Your task to perform on an android device: Show me productivity apps on the Play Store Image 0: 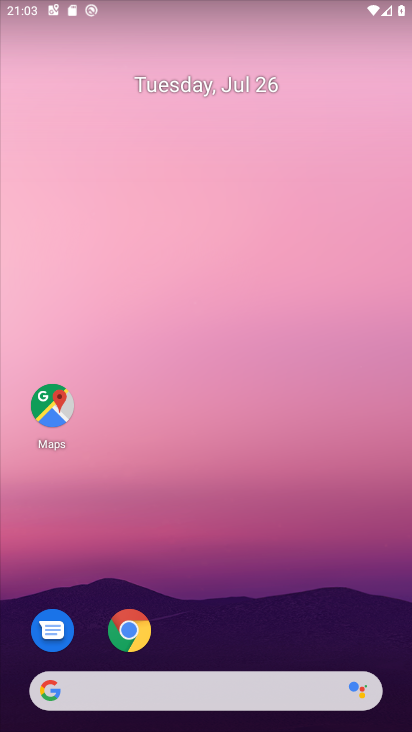
Step 0: drag from (387, 672) to (353, 205)
Your task to perform on an android device: Show me productivity apps on the Play Store Image 1: 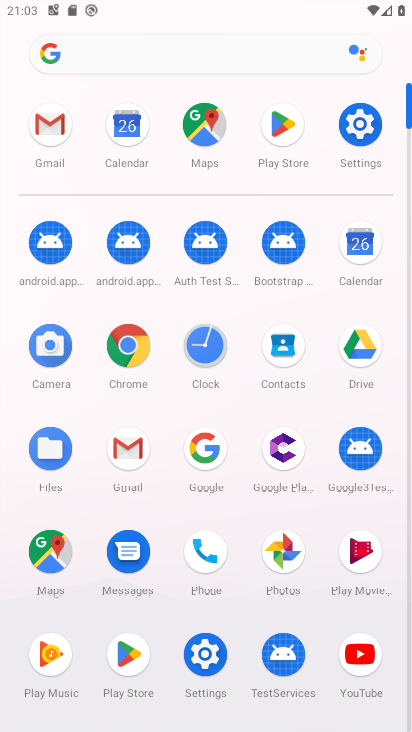
Step 1: click (122, 654)
Your task to perform on an android device: Show me productivity apps on the Play Store Image 2: 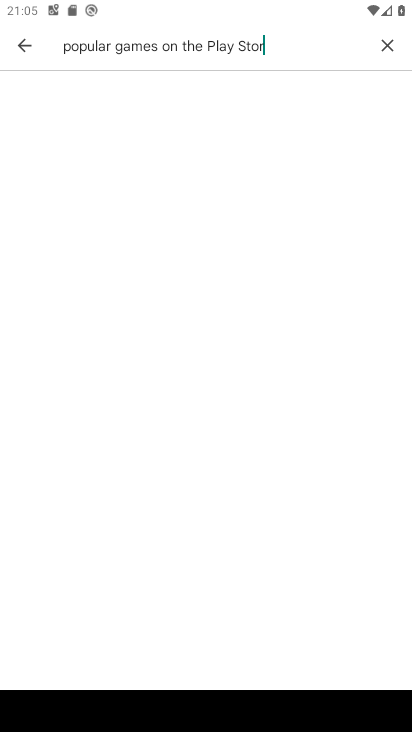
Step 2: task complete